Your task to perform on an android device: Open Wikipedia Image 0: 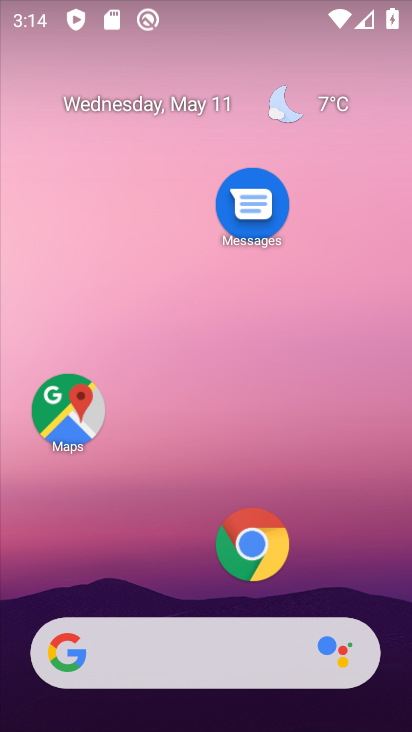
Step 0: click (245, 561)
Your task to perform on an android device: Open Wikipedia Image 1: 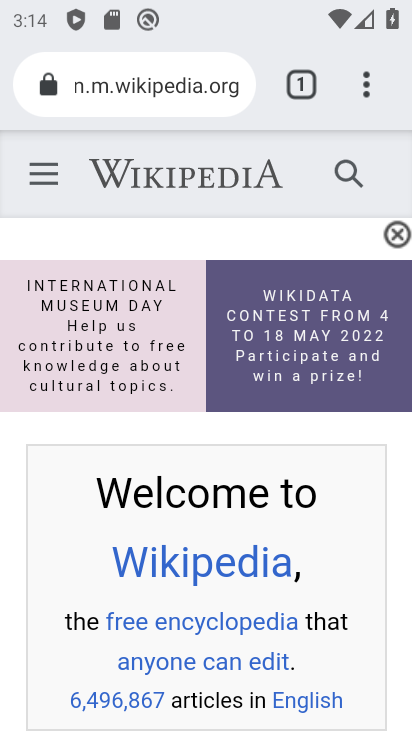
Step 1: task complete